Your task to perform on an android device: Go to settings Image 0: 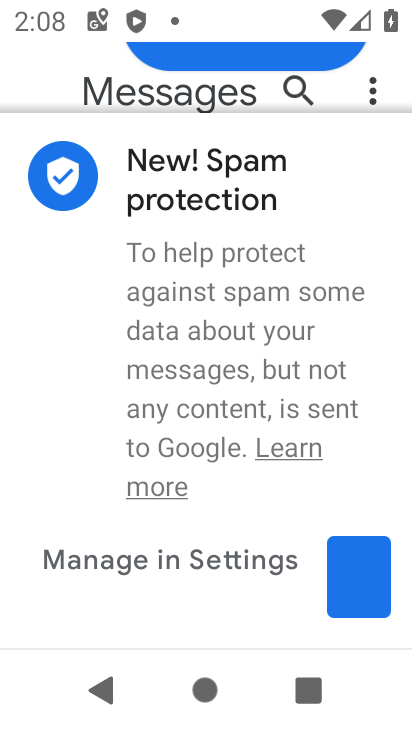
Step 0: press home button
Your task to perform on an android device: Go to settings Image 1: 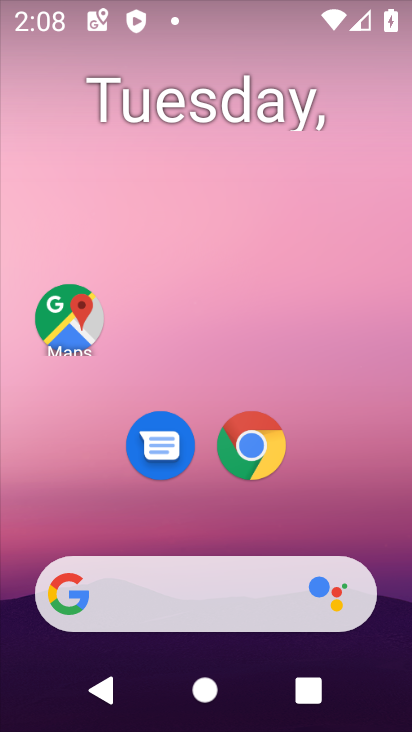
Step 1: drag from (194, 515) to (230, 9)
Your task to perform on an android device: Go to settings Image 2: 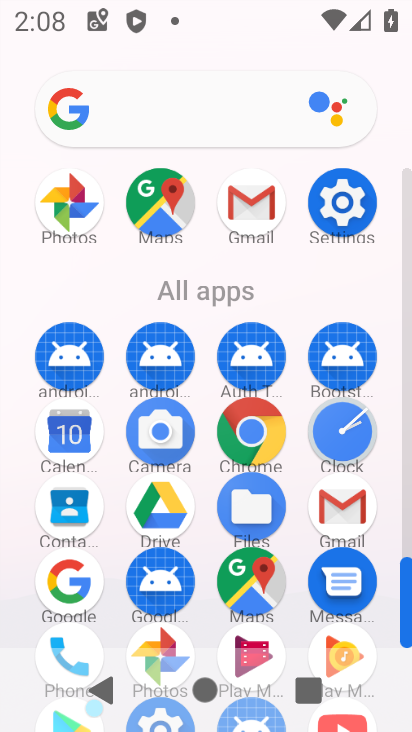
Step 2: click (350, 186)
Your task to perform on an android device: Go to settings Image 3: 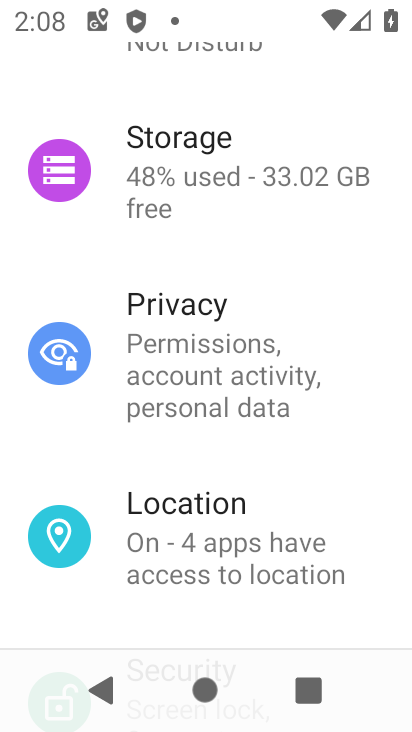
Step 3: task complete